Your task to perform on an android device: Show me popular games on the Play Store Image 0: 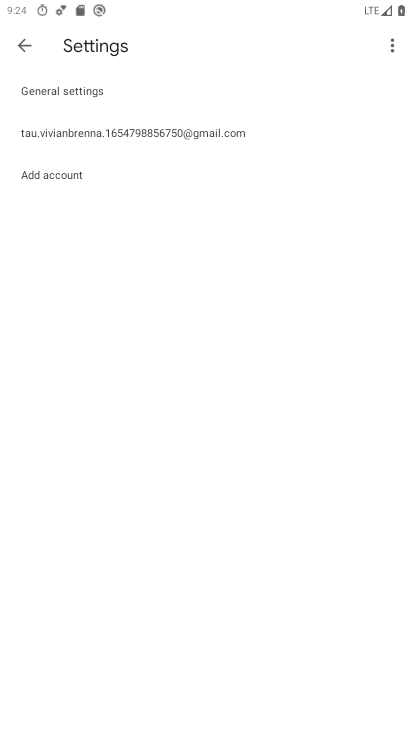
Step 0: press home button
Your task to perform on an android device: Show me popular games on the Play Store Image 1: 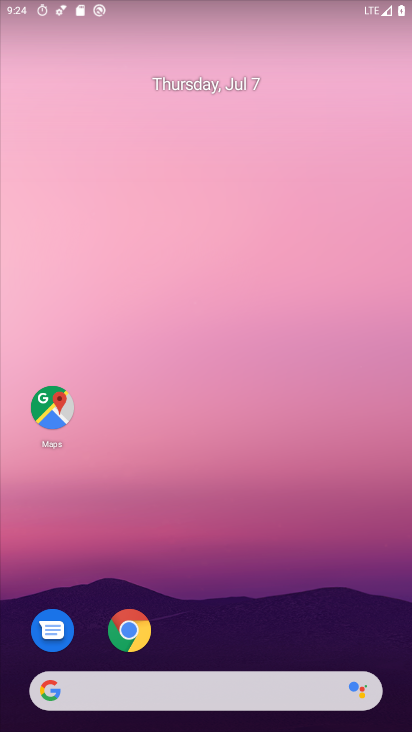
Step 1: drag from (13, 711) to (400, 721)
Your task to perform on an android device: Show me popular games on the Play Store Image 2: 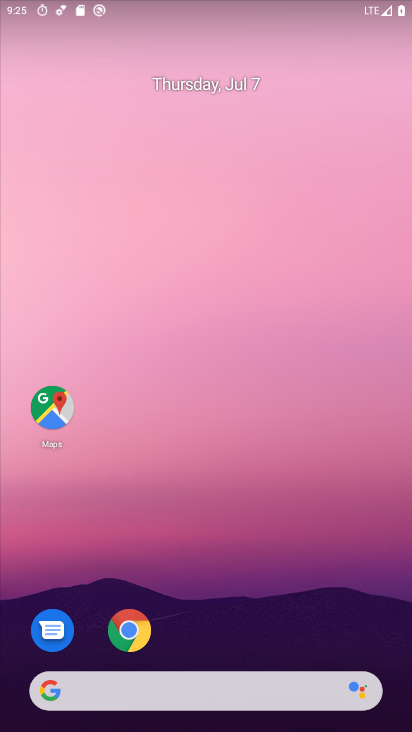
Step 2: drag from (30, 708) to (327, 2)
Your task to perform on an android device: Show me popular games on the Play Store Image 3: 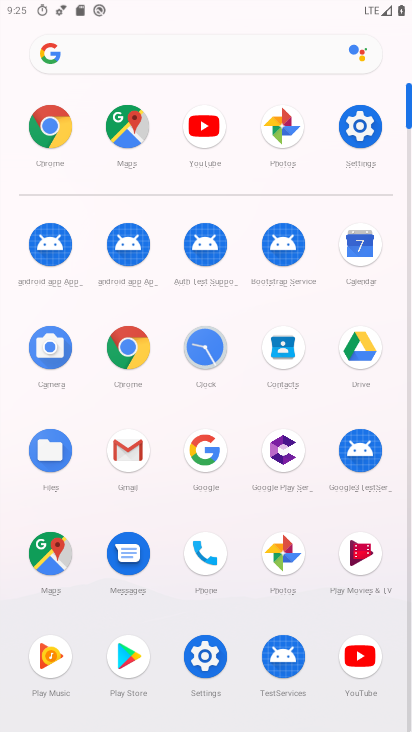
Step 3: click (134, 662)
Your task to perform on an android device: Show me popular games on the Play Store Image 4: 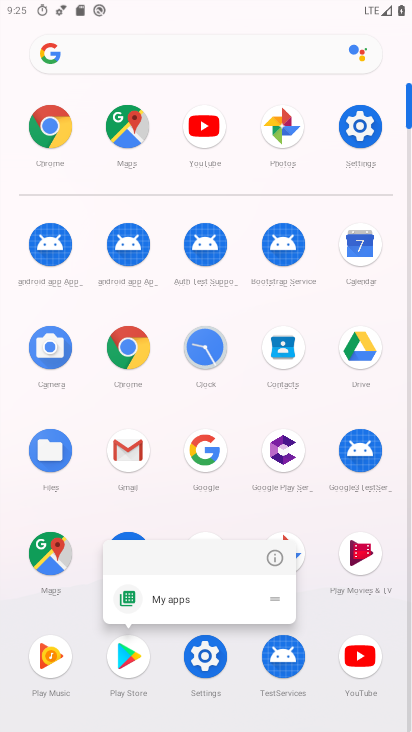
Step 4: click (129, 659)
Your task to perform on an android device: Show me popular games on the Play Store Image 5: 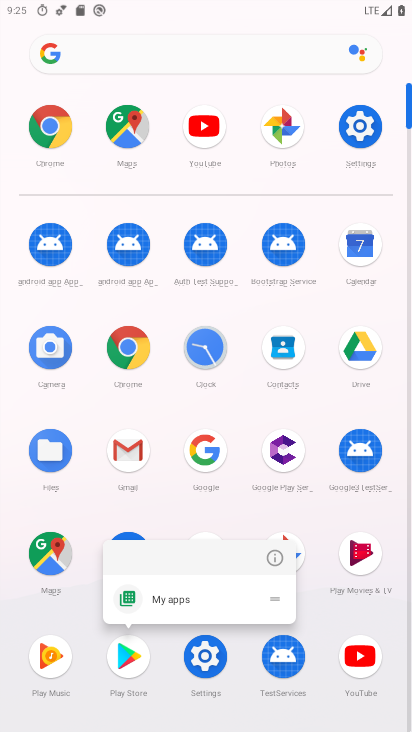
Step 5: click (139, 670)
Your task to perform on an android device: Show me popular games on the Play Store Image 6: 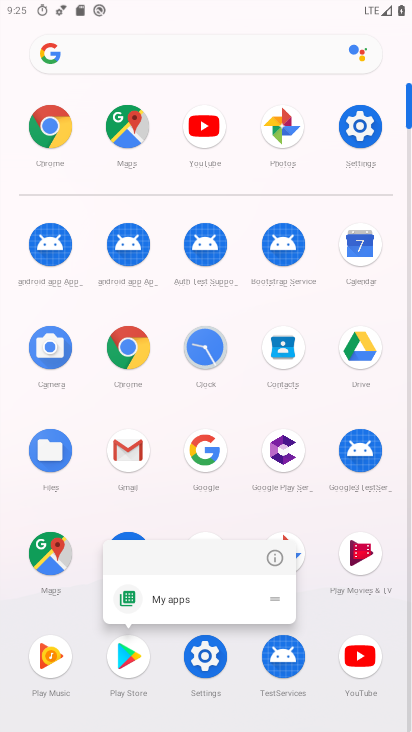
Step 6: click (128, 660)
Your task to perform on an android device: Show me popular games on the Play Store Image 7: 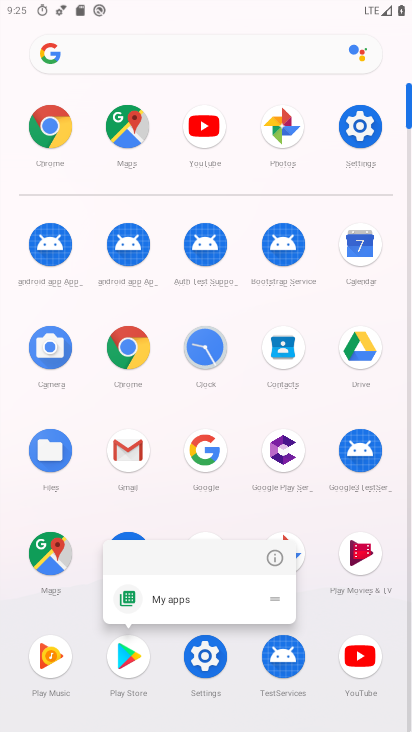
Step 7: click (129, 659)
Your task to perform on an android device: Show me popular games on the Play Store Image 8: 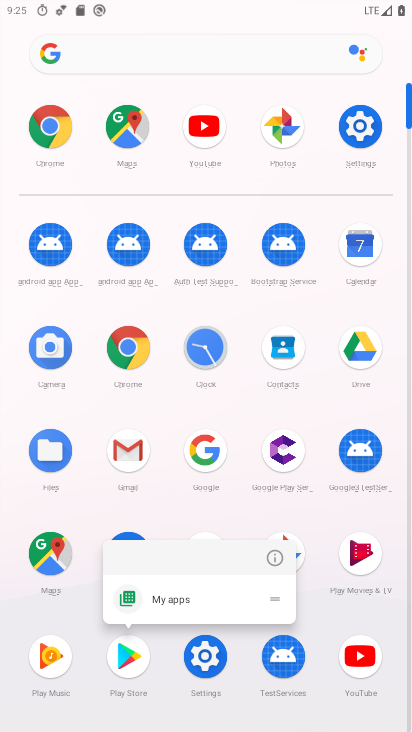
Step 8: task complete